Your task to perform on an android device: Empty the shopping cart on amazon.com. Search for "dell xps" on amazon.com, select the first entry, add it to the cart, then select checkout. Image 0: 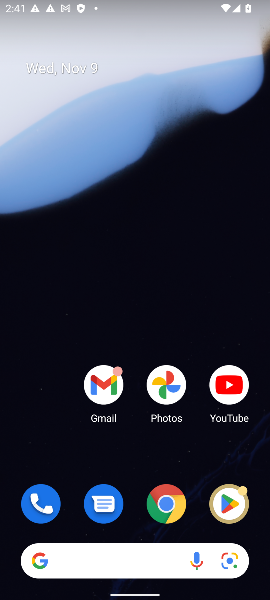
Step 0: click (163, 504)
Your task to perform on an android device: Empty the shopping cart on amazon.com. Search for "dell xps" on amazon.com, select the first entry, add it to the cart, then select checkout. Image 1: 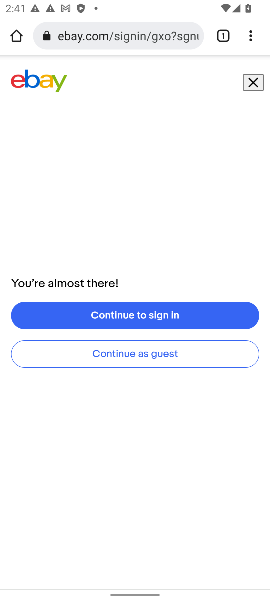
Step 1: click (57, 40)
Your task to perform on an android device: Empty the shopping cart on amazon.com. Search for "dell xps" on amazon.com, select the first entry, add it to the cart, then select checkout. Image 2: 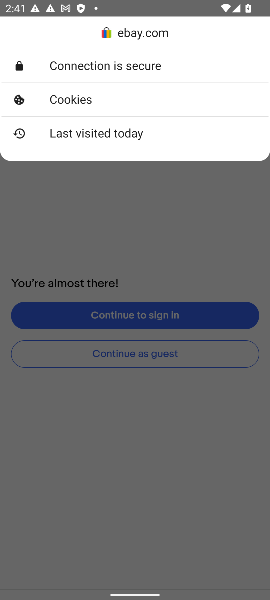
Step 2: click (191, 201)
Your task to perform on an android device: Empty the shopping cart on amazon.com. Search for "dell xps" on amazon.com, select the first entry, add it to the cart, then select checkout. Image 3: 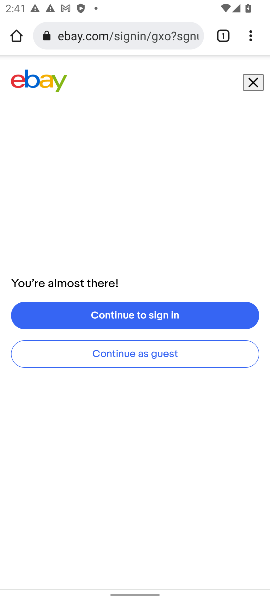
Step 3: click (105, 43)
Your task to perform on an android device: Empty the shopping cart on amazon.com. Search for "dell xps" on amazon.com, select the first entry, add it to the cart, then select checkout. Image 4: 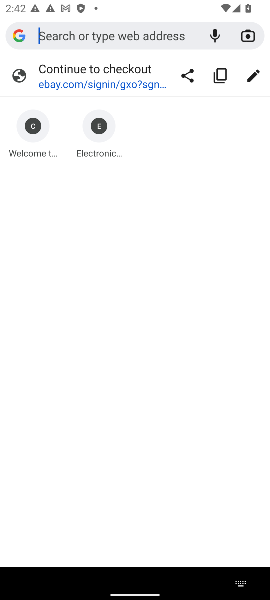
Step 4: type "amazon.com"
Your task to perform on an android device: Empty the shopping cart on amazon.com. Search for "dell xps" on amazon.com, select the first entry, add it to the cart, then select checkout. Image 5: 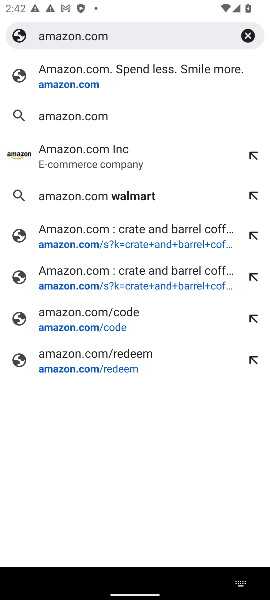
Step 5: click (61, 89)
Your task to perform on an android device: Empty the shopping cart on amazon.com. Search for "dell xps" on amazon.com, select the first entry, add it to the cart, then select checkout. Image 6: 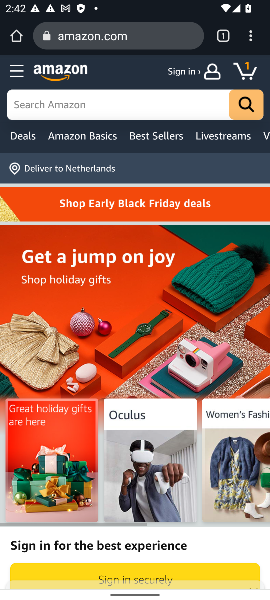
Step 6: click (246, 72)
Your task to perform on an android device: Empty the shopping cart on amazon.com. Search for "dell xps" on amazon.com, select the first entry, add it to the cart, then select checkout. Image 7: 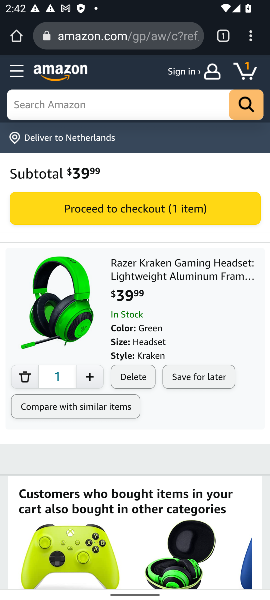
Step 7: click (136, 374)
Your task to perform on an android device: Empty the shopping cart on amazon.com. Search for "dell xps" on amazon.com, select the first entry, add it to the cart, then select checkout. Image 8: 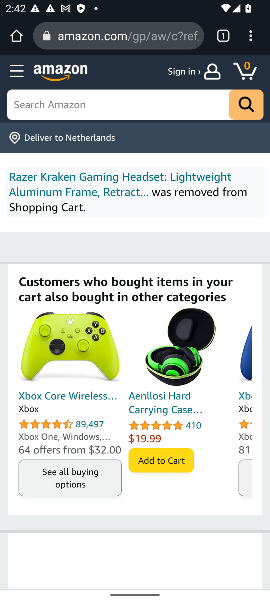
Step 8: click (77, 109)
Your task to perform on an android device: Empty the shopping cart on amazon.com. Search for "dell xps" on amazon.com, select the first entry, add it to the cart, then select checkout. Image 9: 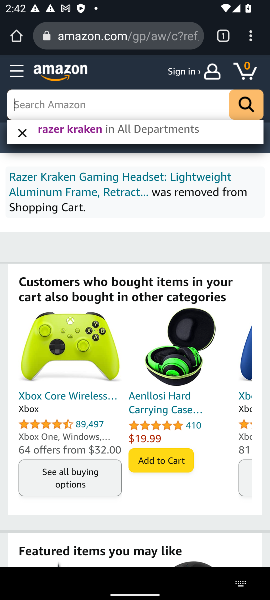
Step 9: type "dell xps"
Your task to perform on an android device: Empty the shopping cart on amazon.com. Search for "dell xps" on amazon.com, select the first entry, add it to the cart, then select checkout. Image 10: 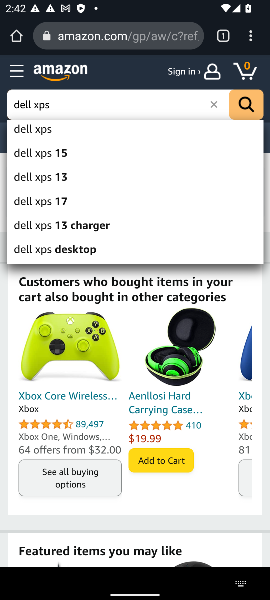
Step 10: click (31, 128)
Your task to perform on an android device: Empty the shopping cart on amazon.com. Search for "dell xps" on amazon.com, select the first entry, add it to the cart, then select checkout. Image 11: 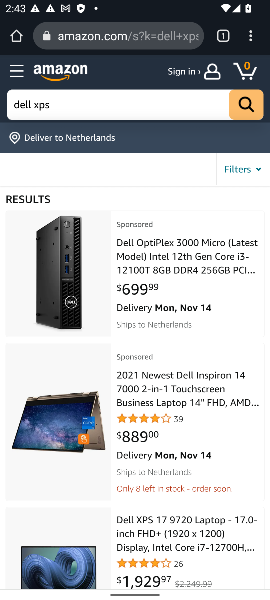
Step 11: task complete